Your task to perform on an android device: Go to sound settings Image 0: 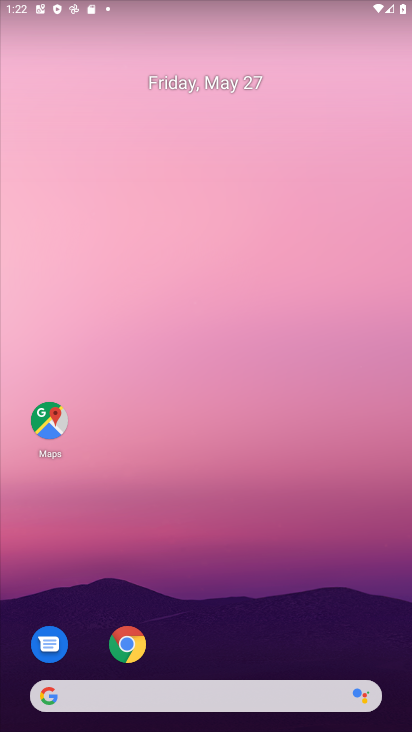
Step 0: drag from (367, 628) to (340, 33)
Your task to perform on an android device: Go to sound settings Image 1: 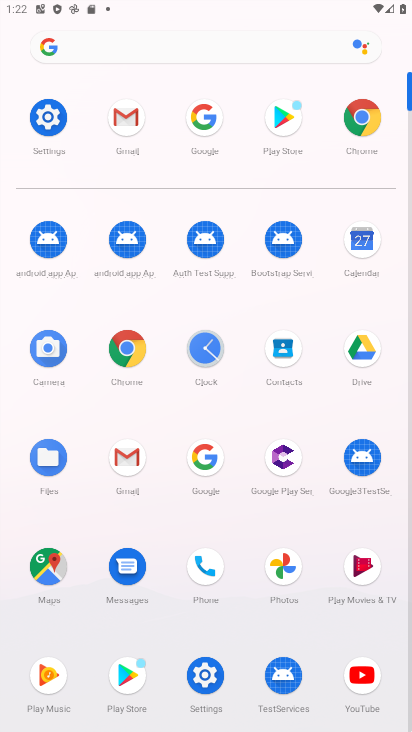
Step 1: click (59, 129)
Your task to perform on an android device: Go to sound settings Image 2: 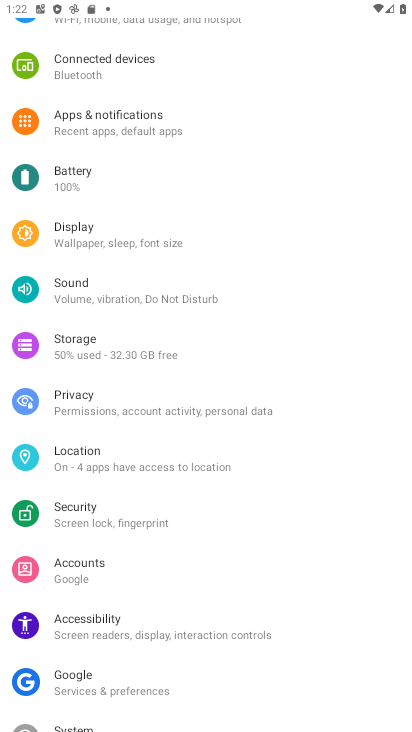
Step 2: click (134, 284)
Your task to perform on an android device: Go to sound settings Image 3: 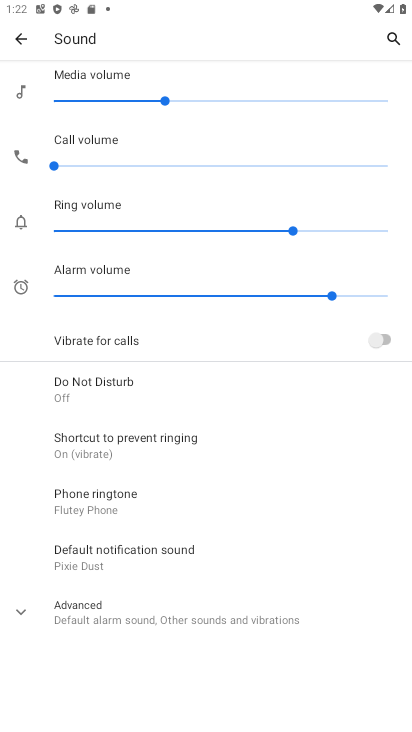
Step 3: task complete